Your task to perform on an android device: Show me the alarms in the clock app Image 0: 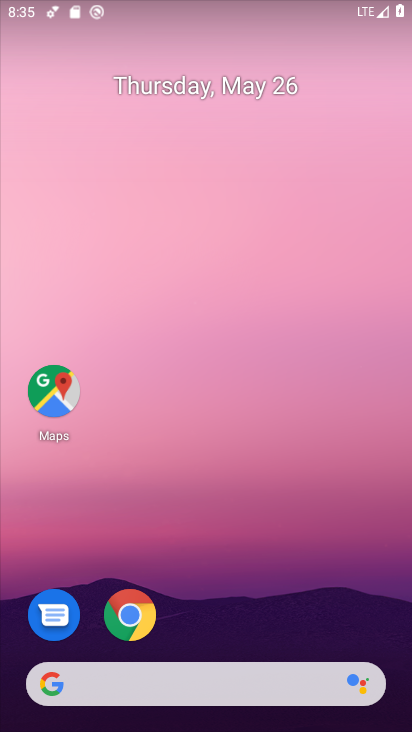
Step 0: drag from (263, 611) to (318, 165)
Your task to perform on an android device: Show me the alarms in the clock app Image 1: 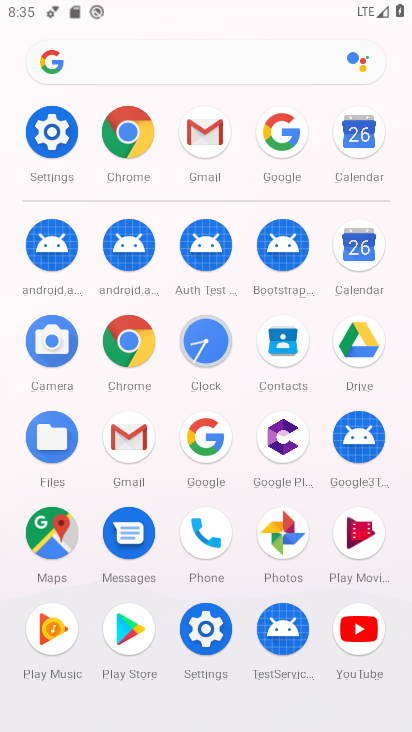
Step 1: click (204, 340)
Your task to perform on an android device: Show me the alarms in the clock app Image 2: 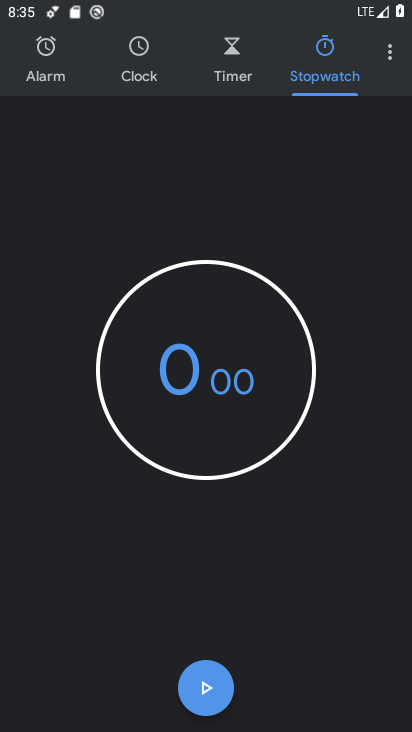
Step 2: click (49, 55)
Your task to perform on an android device: Show me the alarms in the clock app Image 3: 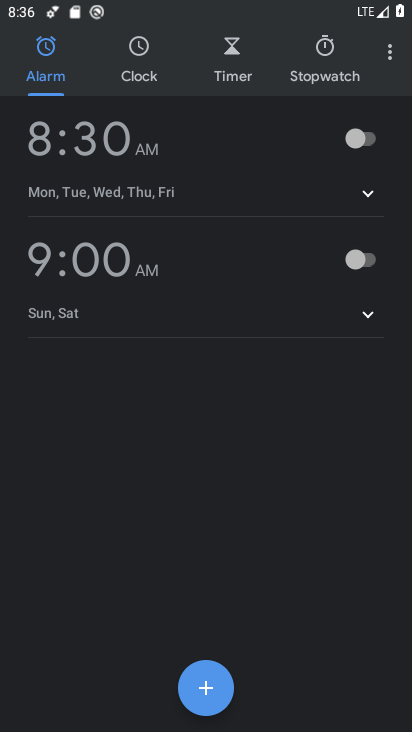
Step 3: task complete